Your task to perform on an android device: Open Google Maps and go to "Timeline" Image 0: 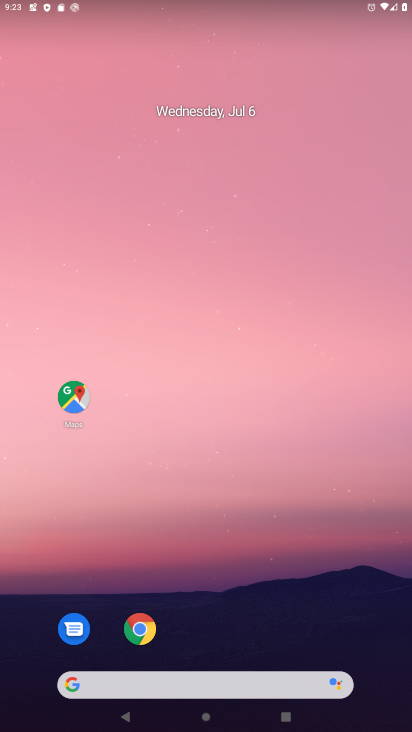
Step 0: click (68, 399)
Your task to perform on an android device: Open Google Maps and go to "Timeline" Image 1: 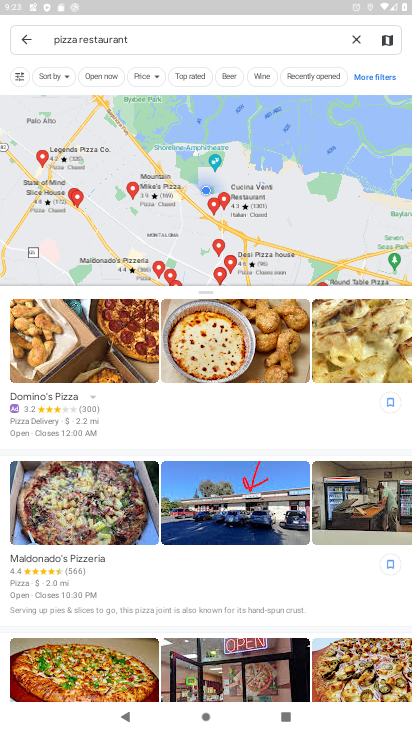
Step 1: click (20, 35)
Your task to perform on an android device: Open Google Maps and go to "Timeline" Image 2: 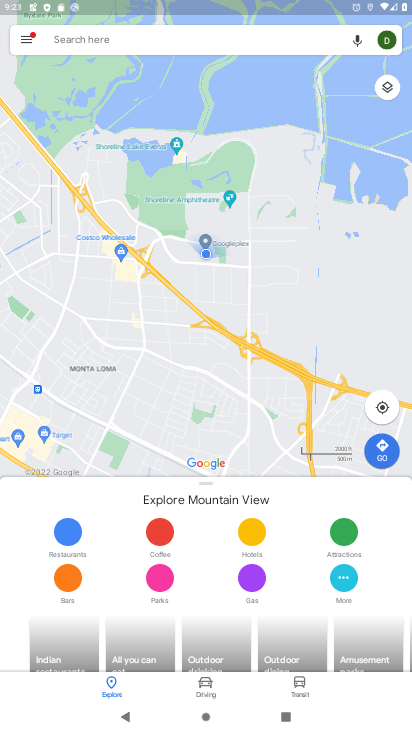
Step 2: click (22, 42)
Your task to perform on an android device: Open Google Maps and go to "Timeline" Image 3: 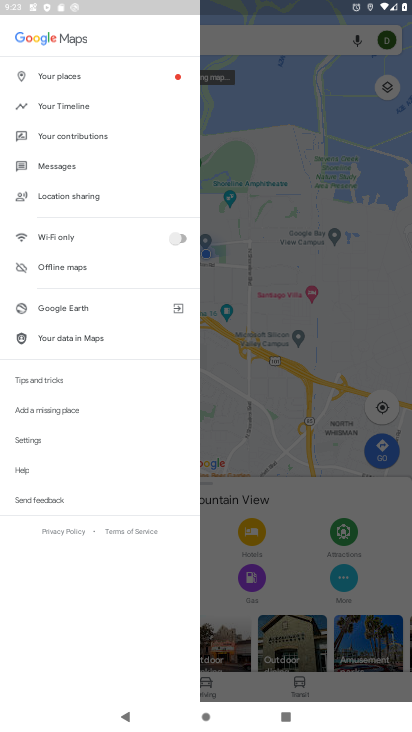
Step 3: click (106, 98)
Your task to perform on an android device: Open Google Maps and go to "Timeline" Image 4: 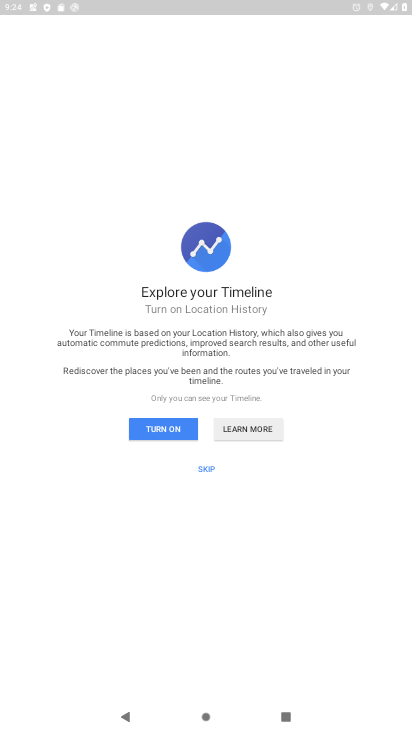
Step 4: click (210, 459)
Your task to perform on an android device: Open Google Maps and go to "Timeline" Image 5: 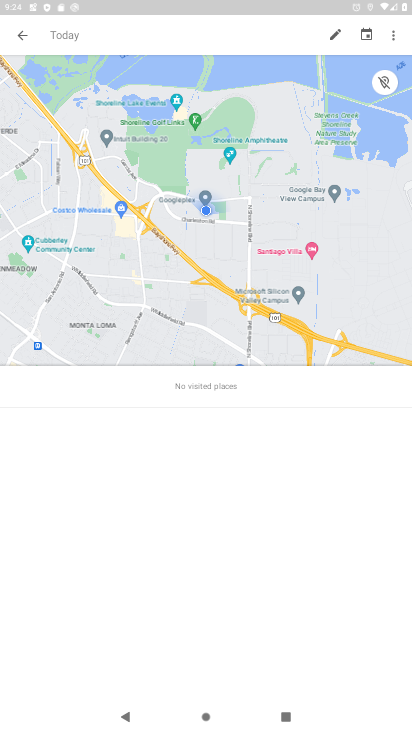
Step 5: task complete